Your task to perform on an android device: open device folders in google photos Image 0: 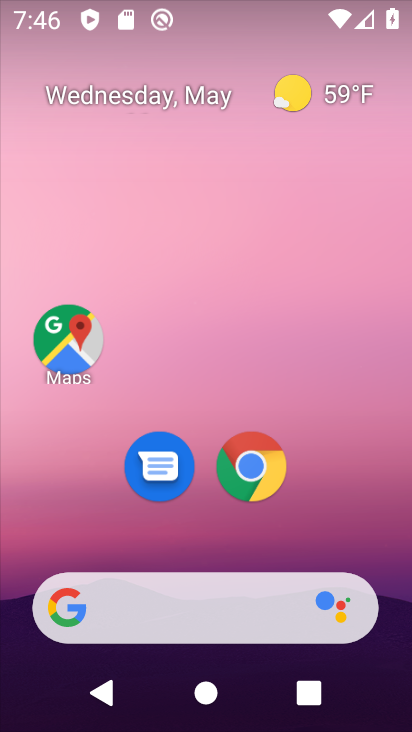
Step 0: drag from (324, 546) to (334, 187)
Your task to perform on an android device: open device folders in google photos Image 1: 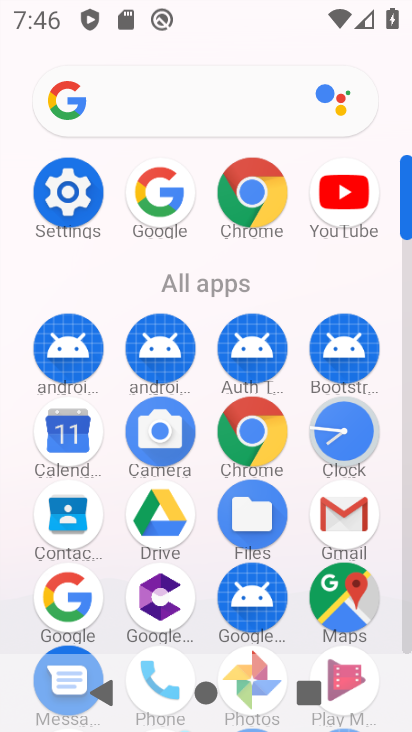
Step 1: drag from (258, 585) to (262, 299)
Your task to perform on an android device: open device folders in google photos Image 2: 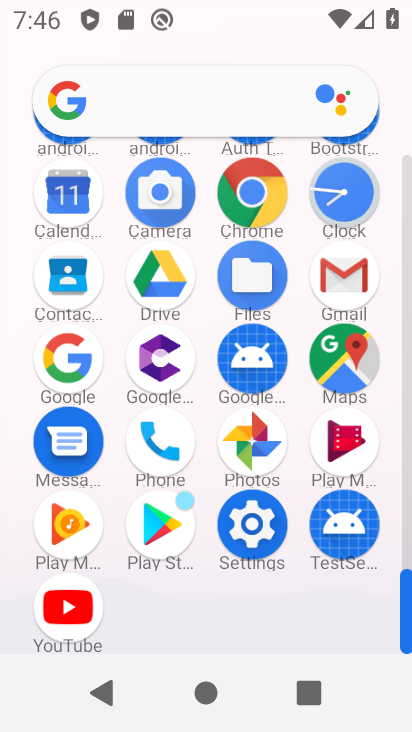
Step 2: click (249, 451)
Your task to perform on an android device: open device folders in google photos Image 3: 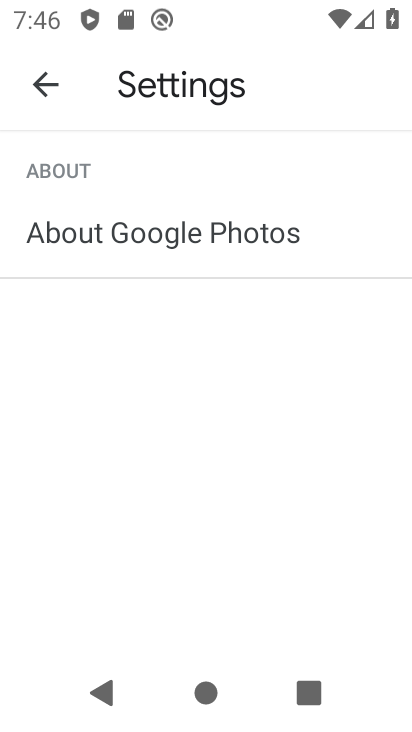
Step 3: click (48, 82)
Your task to perform on an android device: open device folders in google photos Image 4: 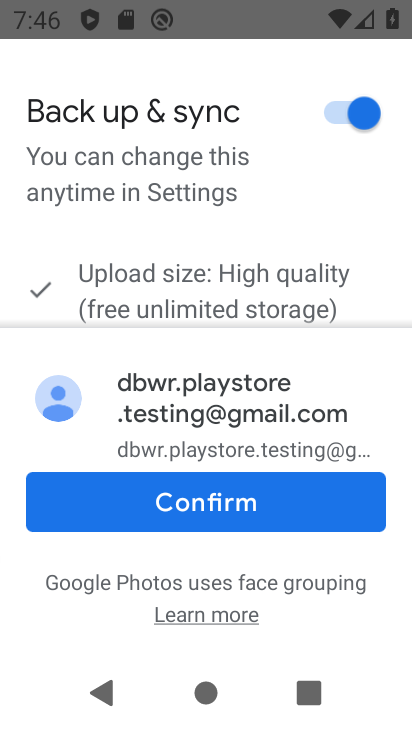
Step 4: click (227, 500)
Your task to perform on an android device: open device folders in google photos Image 5: 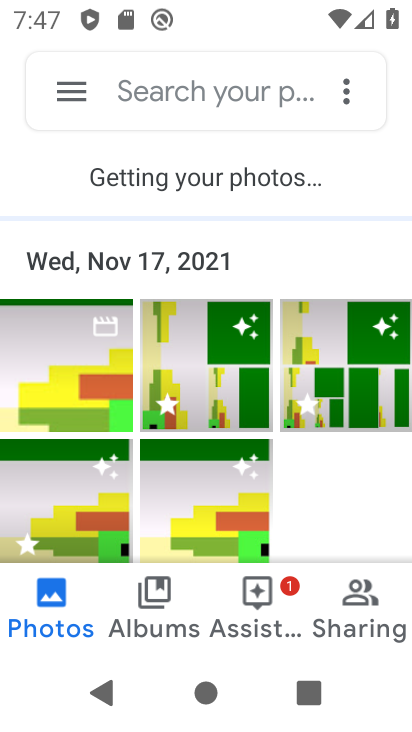
Step 5: task complete